Your task to perform on an android device: Open Youtube and go to "Your channel" Image 0: 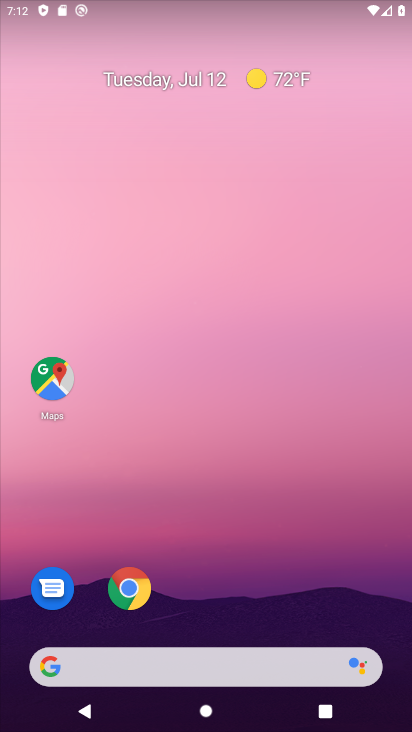
Step 0: drag from (274, 604) to (251, 1)
Your task to perform on an android device: Open Youtube and go to "Your channel" Image 1: 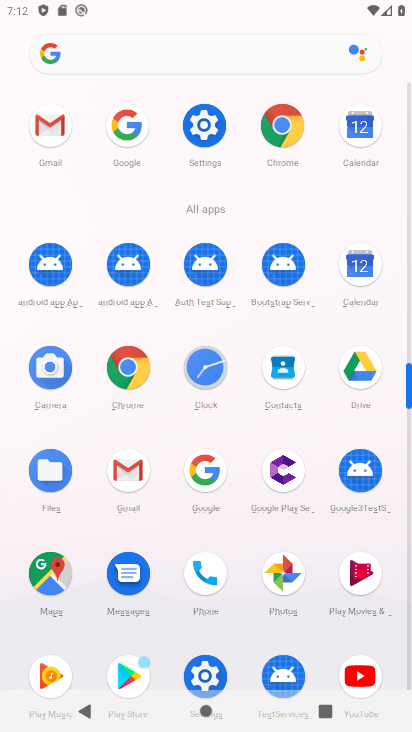
Step 1: click (367, 675)
Your task to perform on an android device: Open Youtube and go to "Your channel" Image 2: 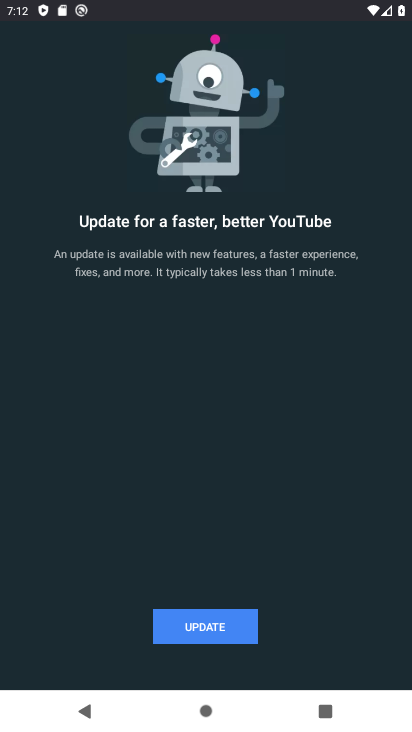
Step 2: click (228, 627)
Your task to perform on an android device: Open Youtube and go to "Your channel" Image 3: 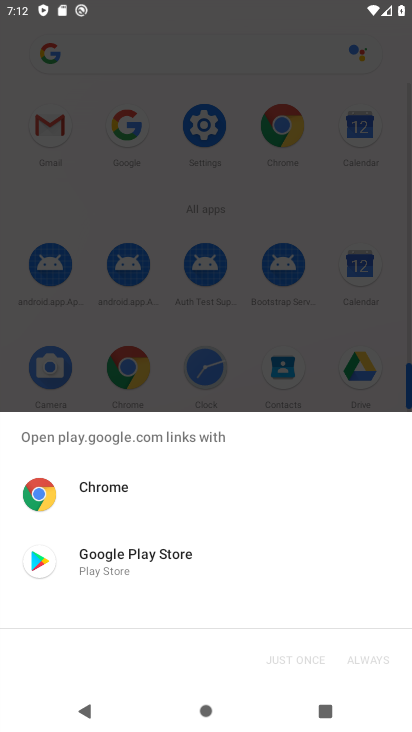
Step 3: click (92, 548)
Your task to perform on an android device: Open Youtube and go to "Your channel" Image 4: 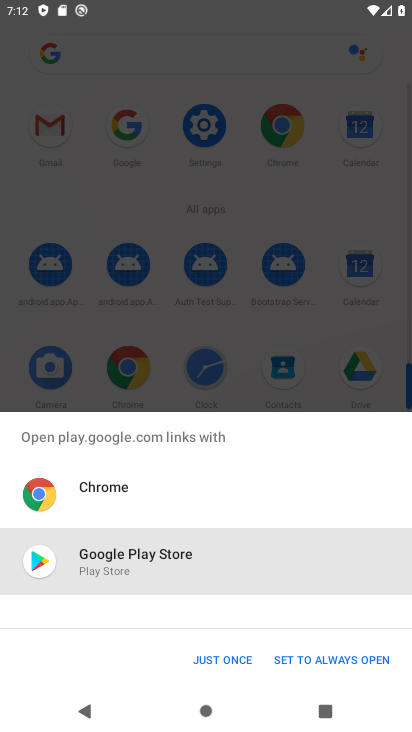
Step 4: click (229, 662)
Your task to perform on an android device: Open Youtube and go to "Your channel" Image 5: 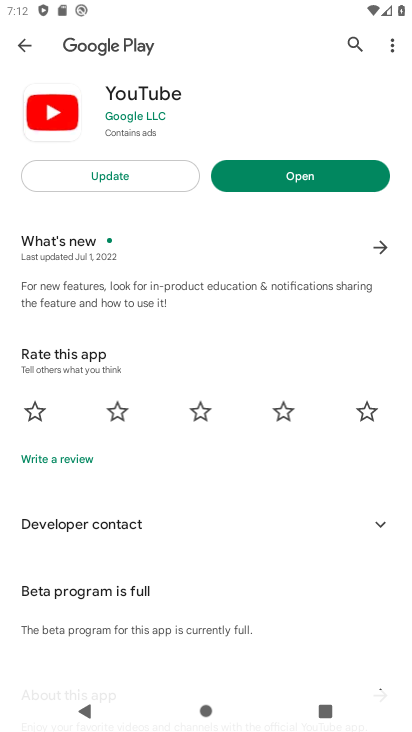
Step 5: click (119, 167)
Your task to perform on an android device: Open Youtube and go to "Your channel" Image 6: 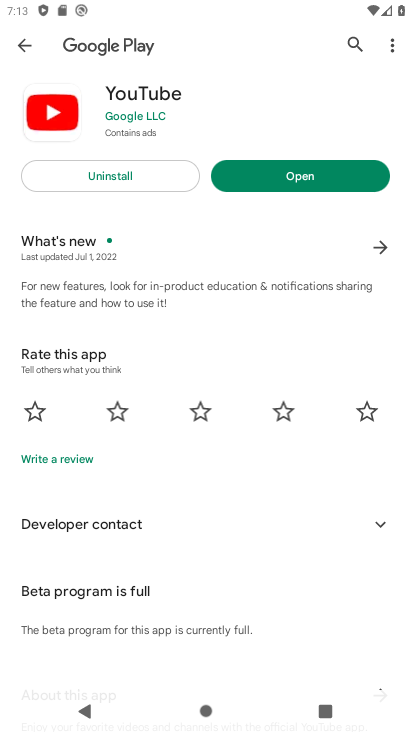
Step 6: click (347, 176)
Your task to perform on an android device: Open Youtube and go to "Your channel" Image 7: 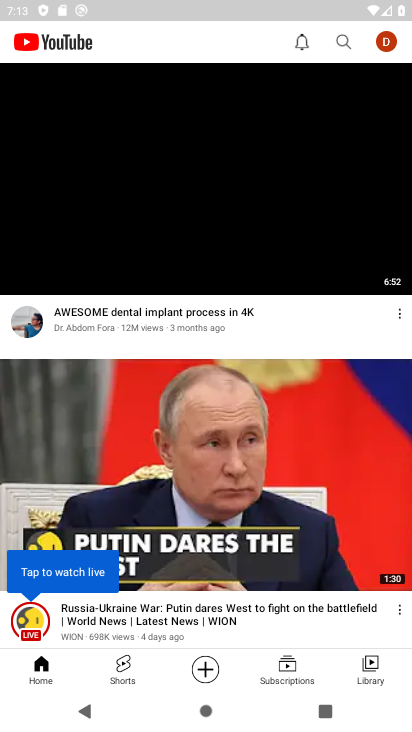
Step 7: click (371, 680)
Your task to perform on an android device: Open Youtube and go to "Your channel" Image 8: 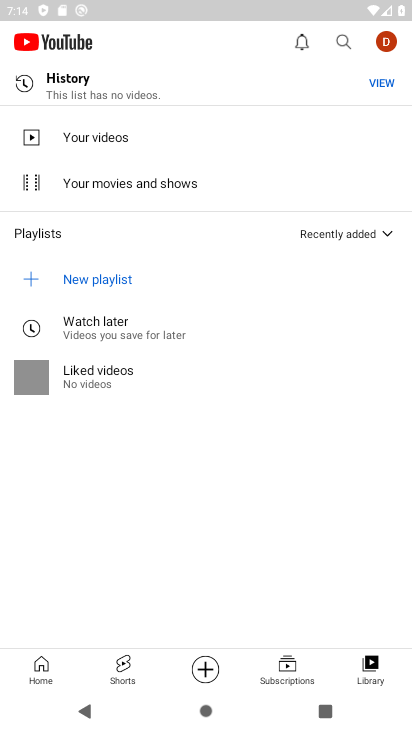
Step 8: click (387, 49)
Your task to perform on an android device: Open Youtube and go to "Your channel" Image 9: 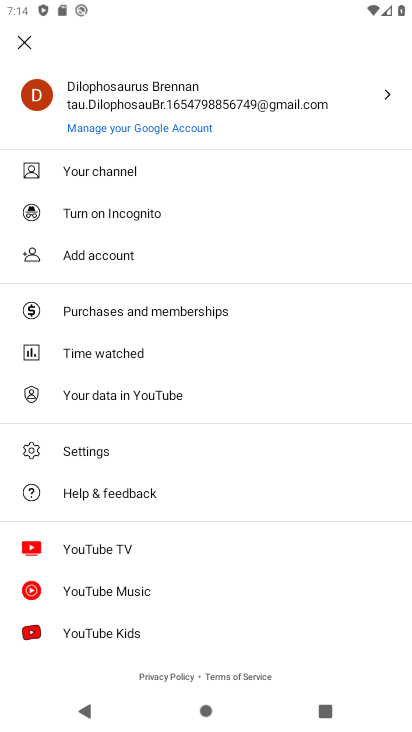
Step 9: click (86, 173)
Your task to perform on an android device: Open Youtube and go to "Your channel" Image 10: 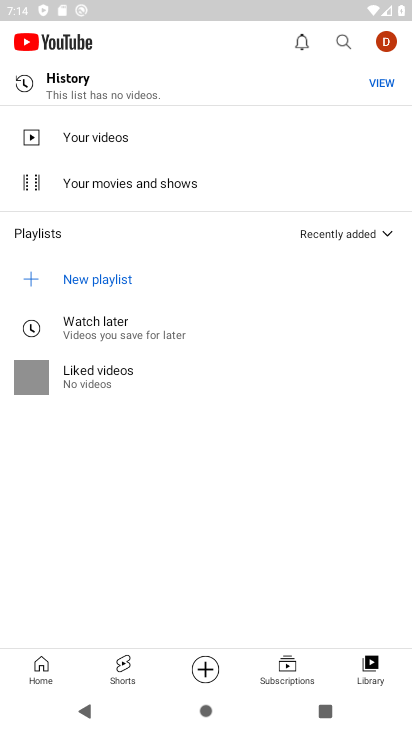
Step 10: task complete